Your task to perform on an android device: see tabs open on other devices in the chrome app Image 0: 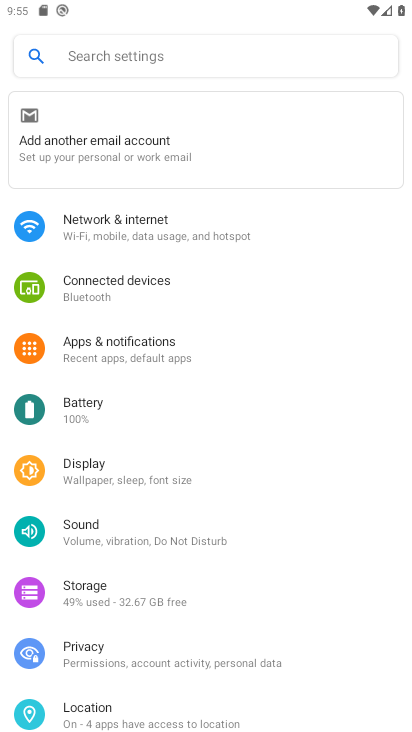
Step 0: press home button
Your task to perform on an android device: see tabs open on other devices in the chrome app Image 1: 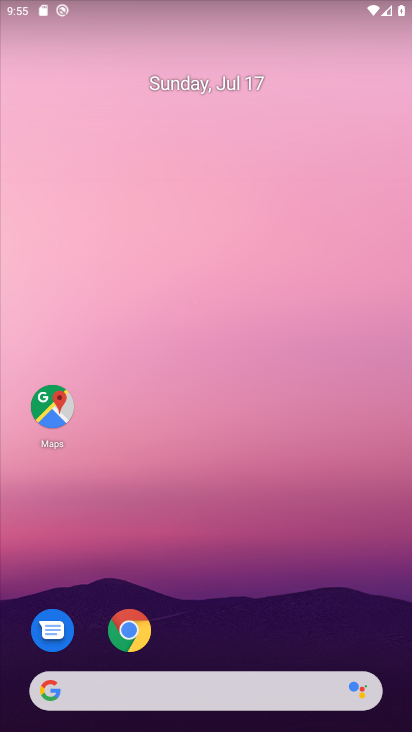
Step 1: click (129, 632)
Your task to perform on an android device: see tabs open on other devices in the chrome app Image 2: 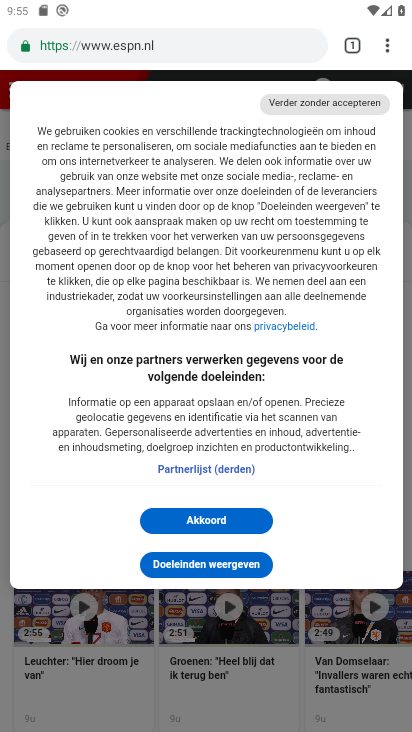
Step 2: click (389, 43)
Your task to perform on an android device: see tabs open on other devices in the chrome app Image 3: 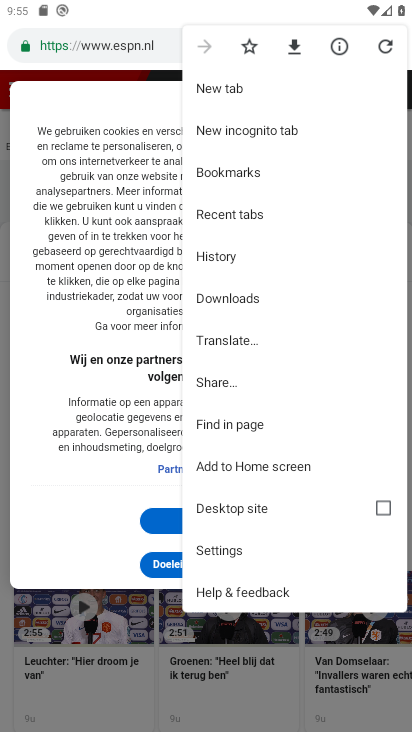
Step 3: click (245, 215)
Your task to perform on an android device: see tabs open on other devices in the chrome app Image 4: 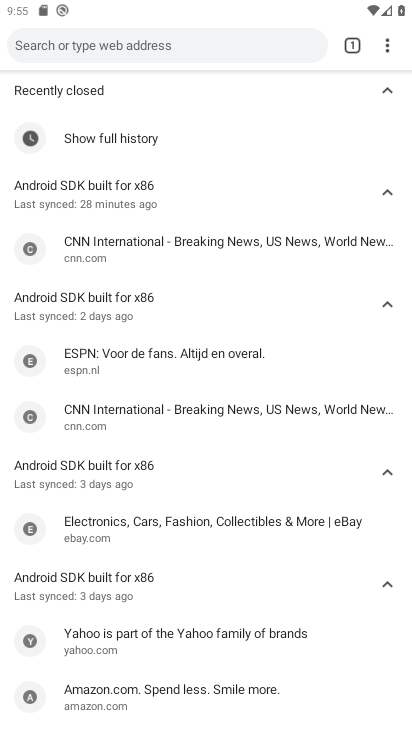
Step 4: task complete